Your task to perform on an android device: add a contact in the contacts app Image 0: 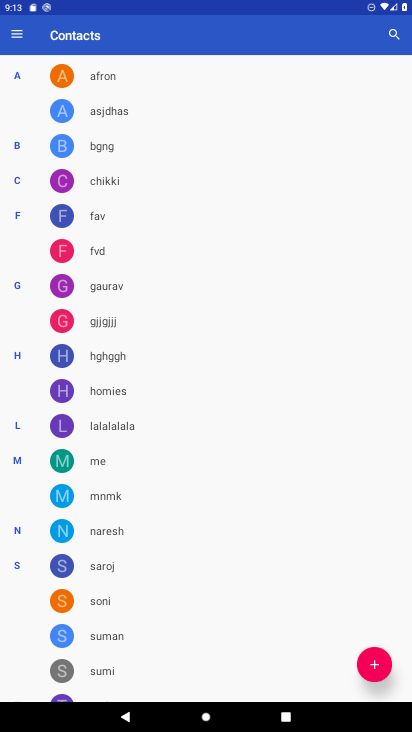
Step 0: click (375, 667)
Your task to perform on an android device: add a contact in the contacts app Image 1: 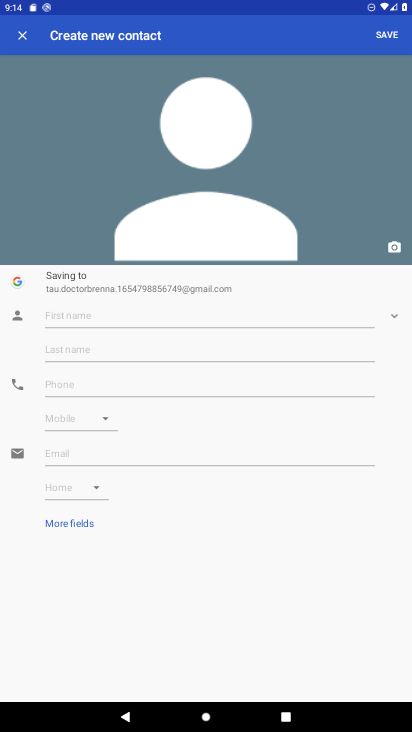
Step 1: click (286, 316)
Your task to perform on an android device: add a contact in the contacts app Image 2: 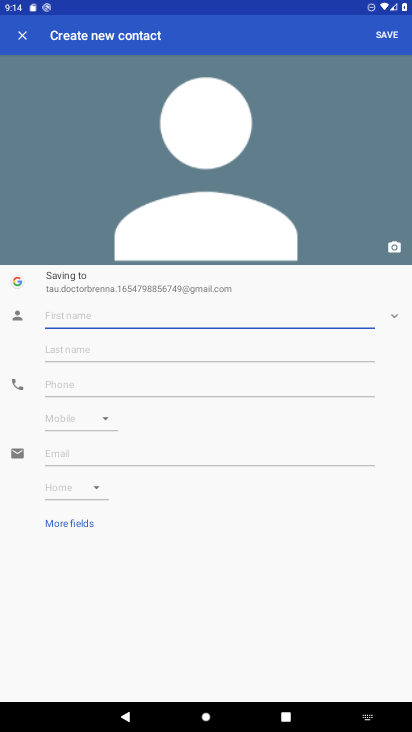
Step 2: type "bnmkl"
Your task to perform on an android device: add a contact in the contacts app Image 3: 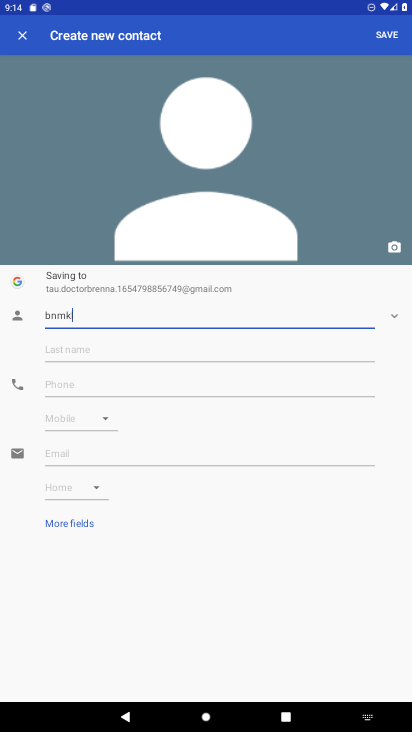
Step 3: click (98, 383)
Your task to perform on an android device: add a contact in the contacts app Image 4: 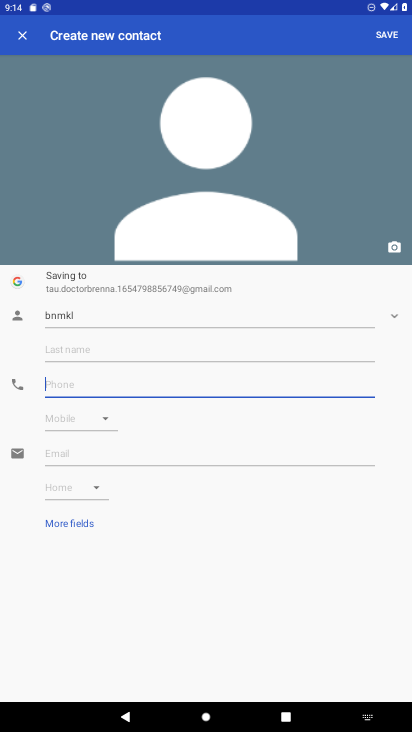
Step 4: type "9098765432"
Your task to perform on an android device: add a contact in the contacts app Image 5: 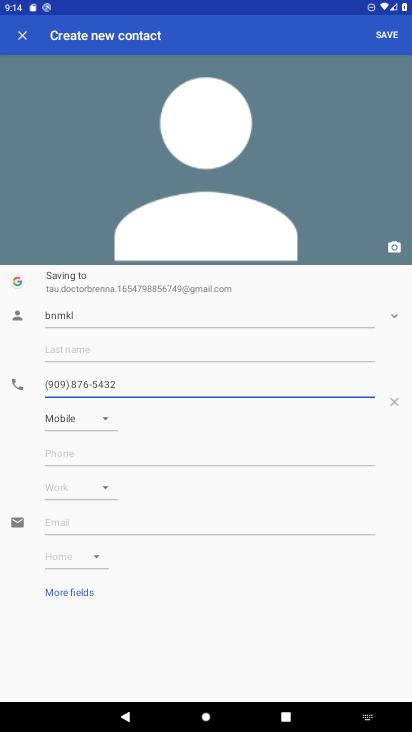
Step 5: click (401, 41)
Your task to perform on an android device: add a contact in the contacts app Image 6: 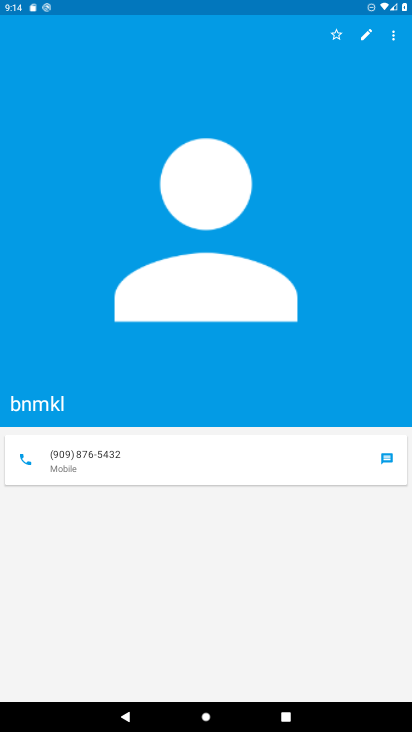
Step 6: task complete